Your task to perform on an android device: delete browsing data in the chrome app Image 0: 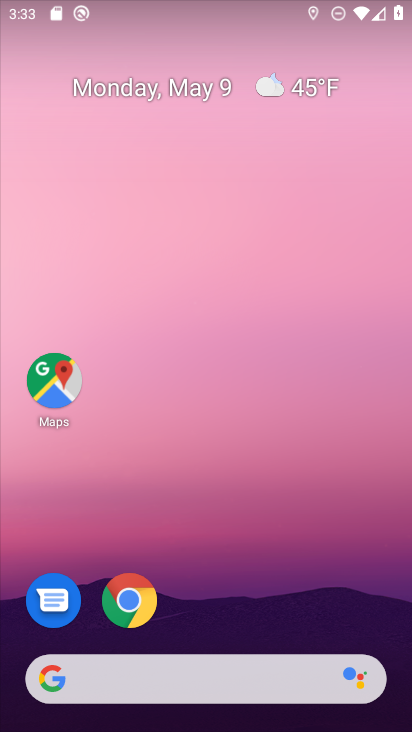
Step 0: click (381, 422)
Your task to perform on an android device: delete browsing data in the chrome app Image 1: 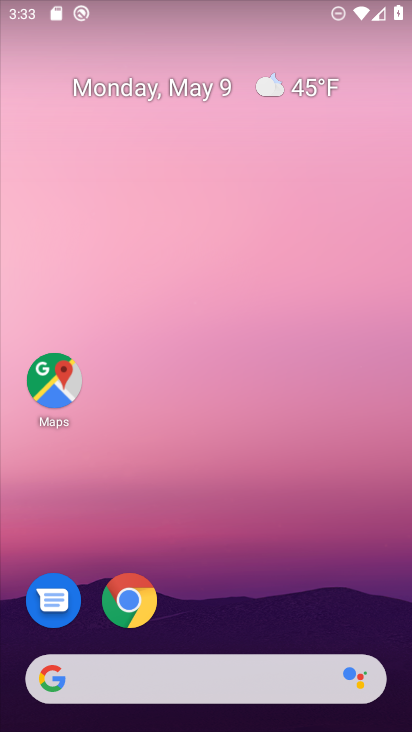
Step 1: click (136, 593)
Your task to perform on an android device: delete browsing data in the chrome app Image 2: 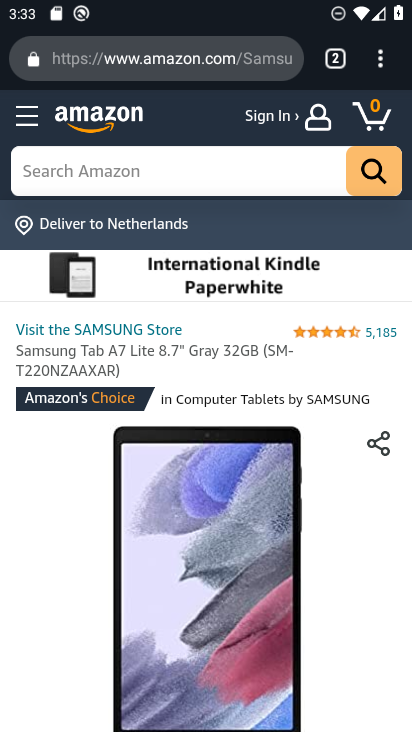
Step 2: click (377, 56)
Your task to perform on an android device: delete browsing data in the chrome app Image 3: 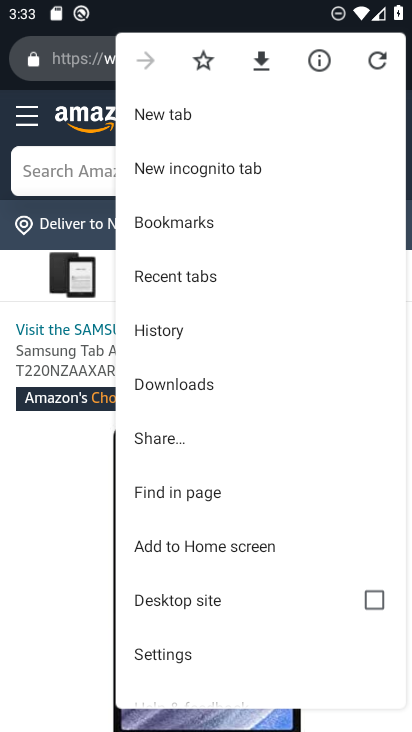
Step 3: click (203, 326)
Your task to perform on an android device: delete browsing data in the chrome app Image 4: 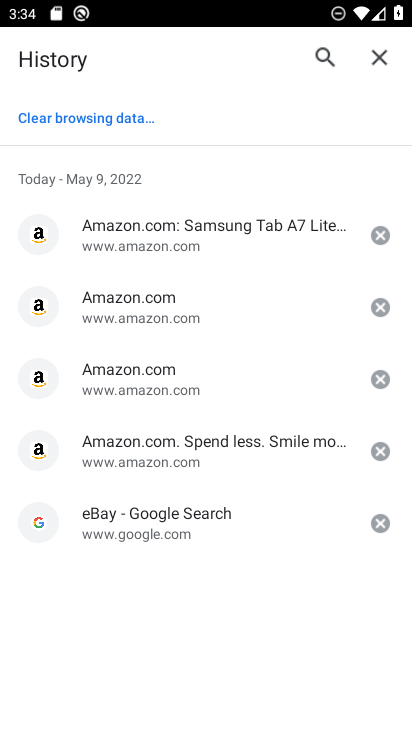
Step 4: click (114, 119)
Your task to perform on an android device: delete browsing data in the chrome app Image 5: 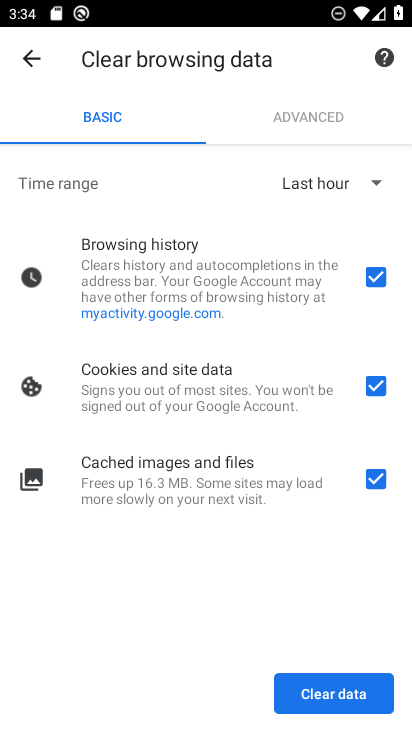
Step 5: click (311, 707)
Your task to perform on an android device: delete browsing data in the chrome app Image 6: 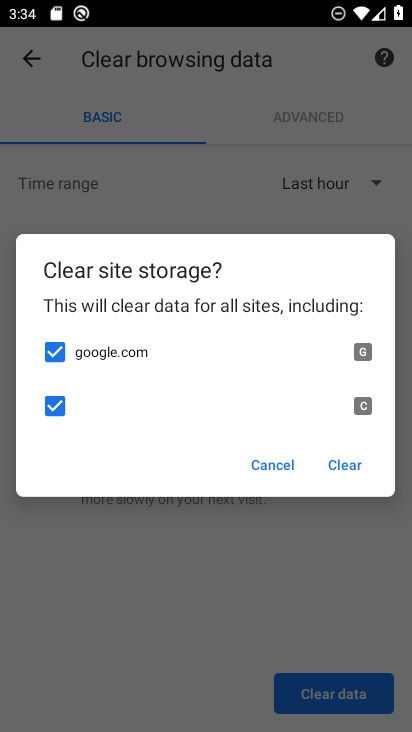
Step 6: click (347, 471)
Your task to perform on an android device: delete browsing data in the chrome app Image 7: 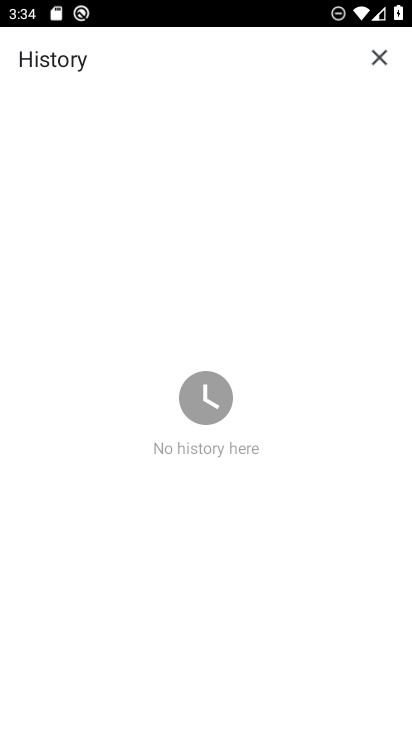
Step 7: task complete